Your task to perform on an android device: change the clock style Image 0: 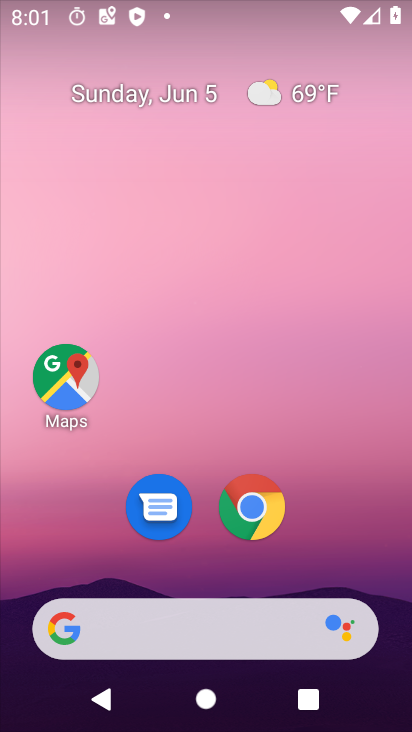
Step 0: drag from (335, 532) to (258, 32)
Your task to perform on an android device: change the clock style Image 1: 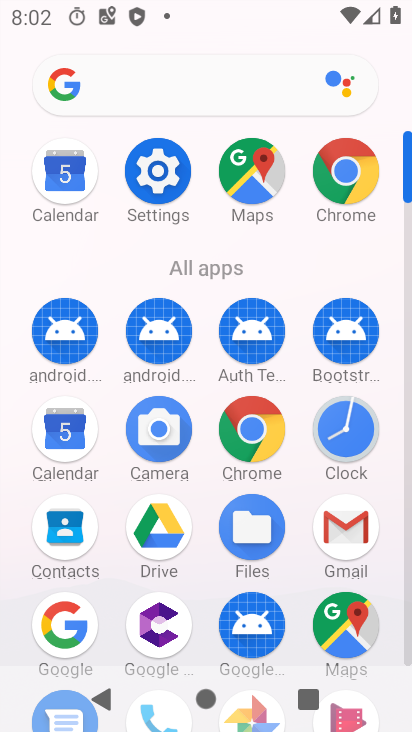
Step 1: click (344, 428)
Your task to perform on an android device: change the clock style Image 2: 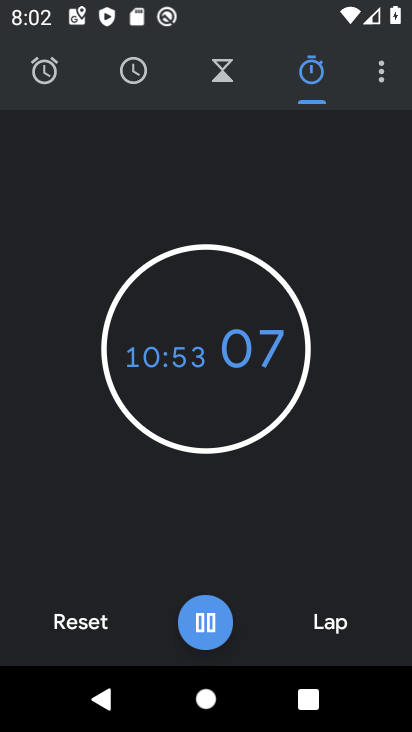
Step 2: drag from (378, 77) to (312, 126)
Your task to perform on an android device: change the clock style Image 3: 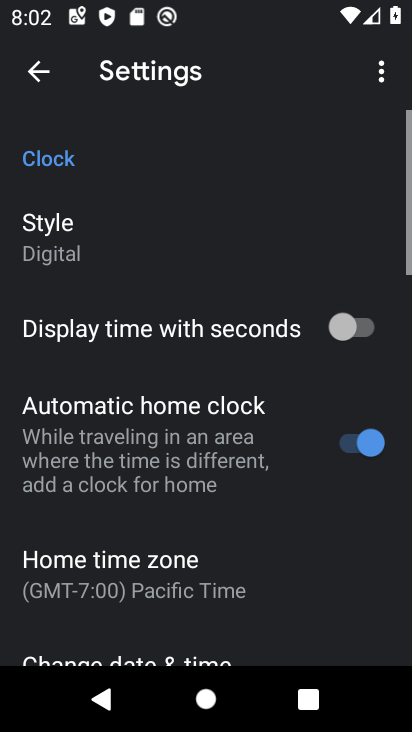
Step 3: click (148, 245)
Your task to perform on an android device: change the clock style Image 4: 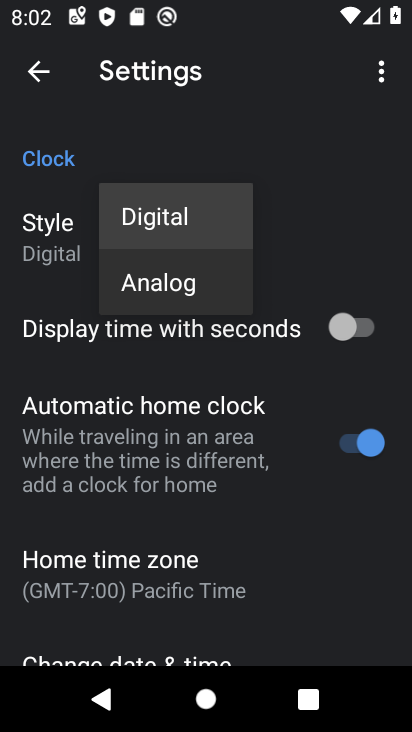
Step 4: click (155, 291)
Your task to perform on an android device: change the clock style Image 5: 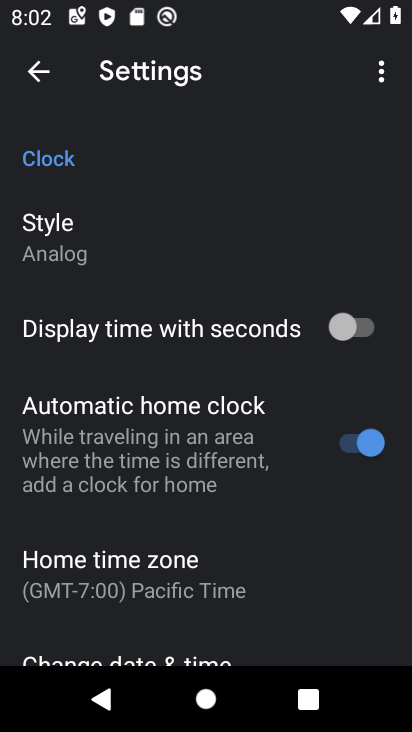
Step 5: task complete